Your task to perform on an android device: When is my next meeting? Image 0: 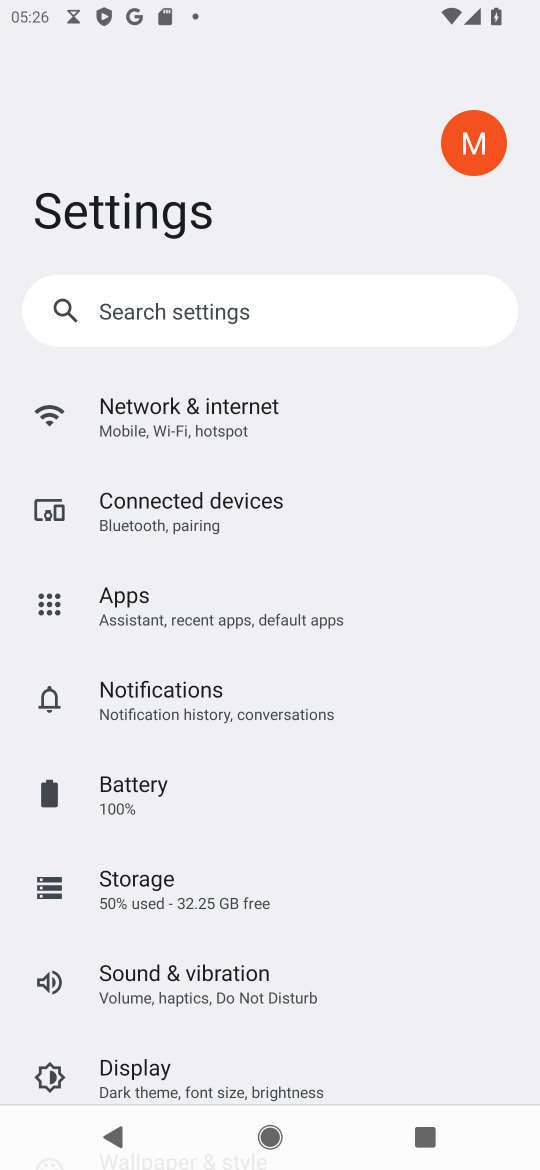
Step 0: press home button
Your task to perform on an android device: When is my next meeting? Image 1: 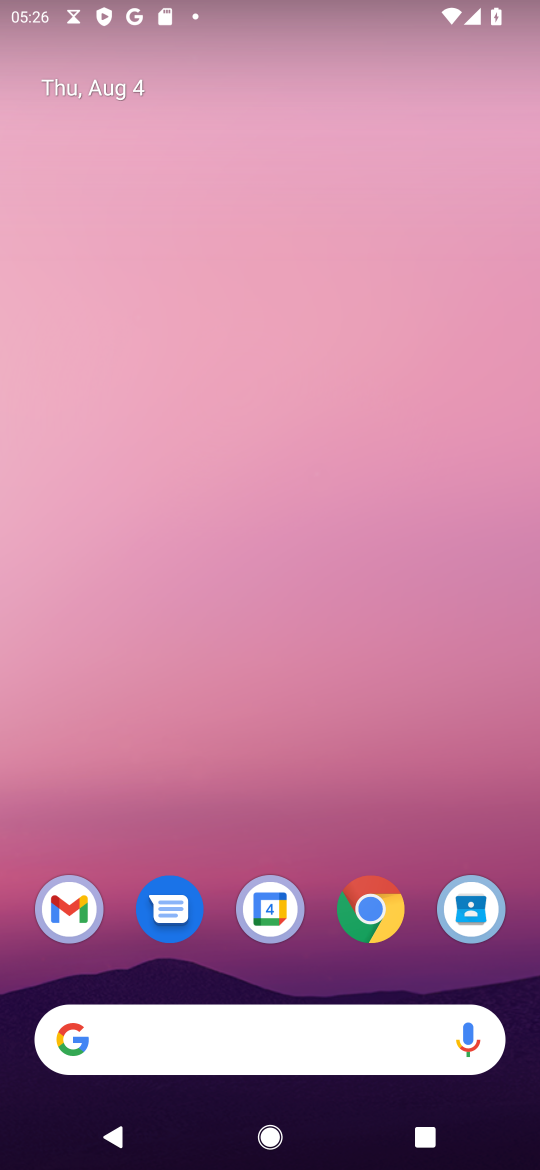
Step 1: drag from (208, 920) to (424, 157)
Your task to perform on an android device: When is my next meeting? Image 2: 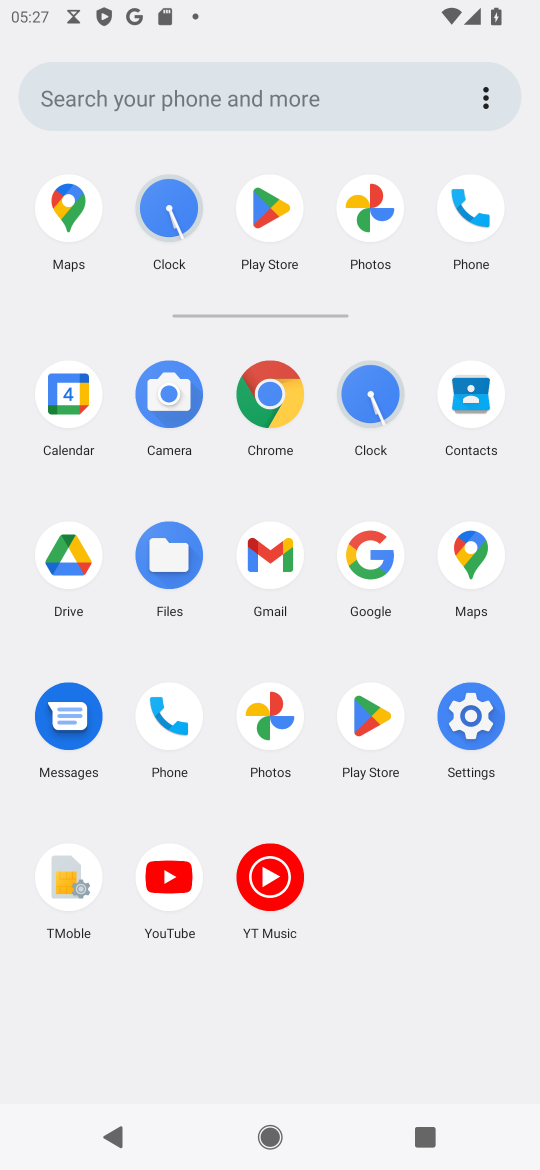
Step 2: click (57, 389)
Your task to perform on an android device: When is my next meeting? Image 3: 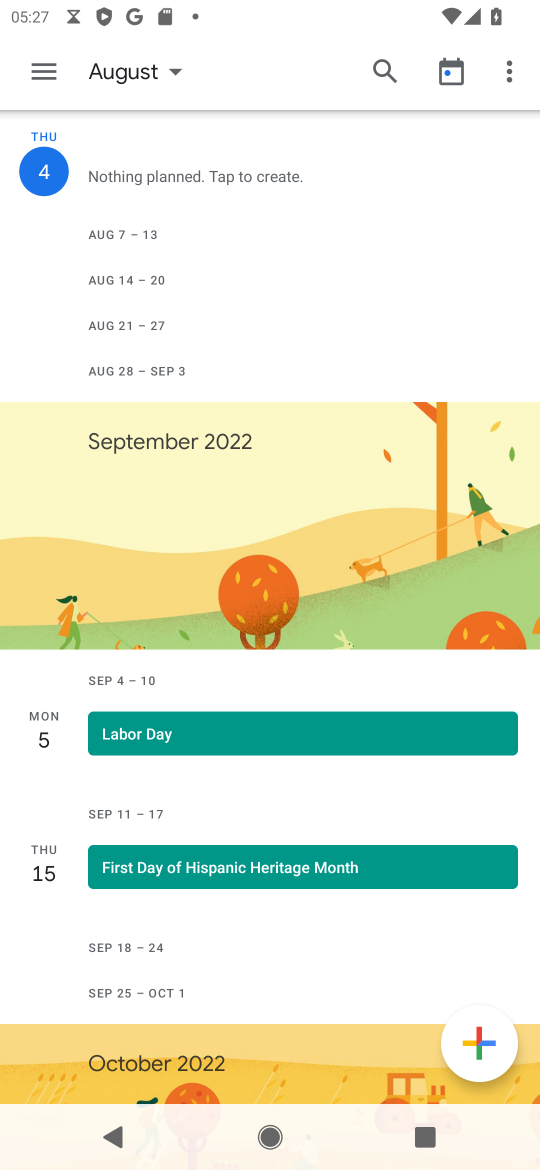
Step 3: task complete